Your task to perform on an android device: Is it going to rain this weekend? Image 0: 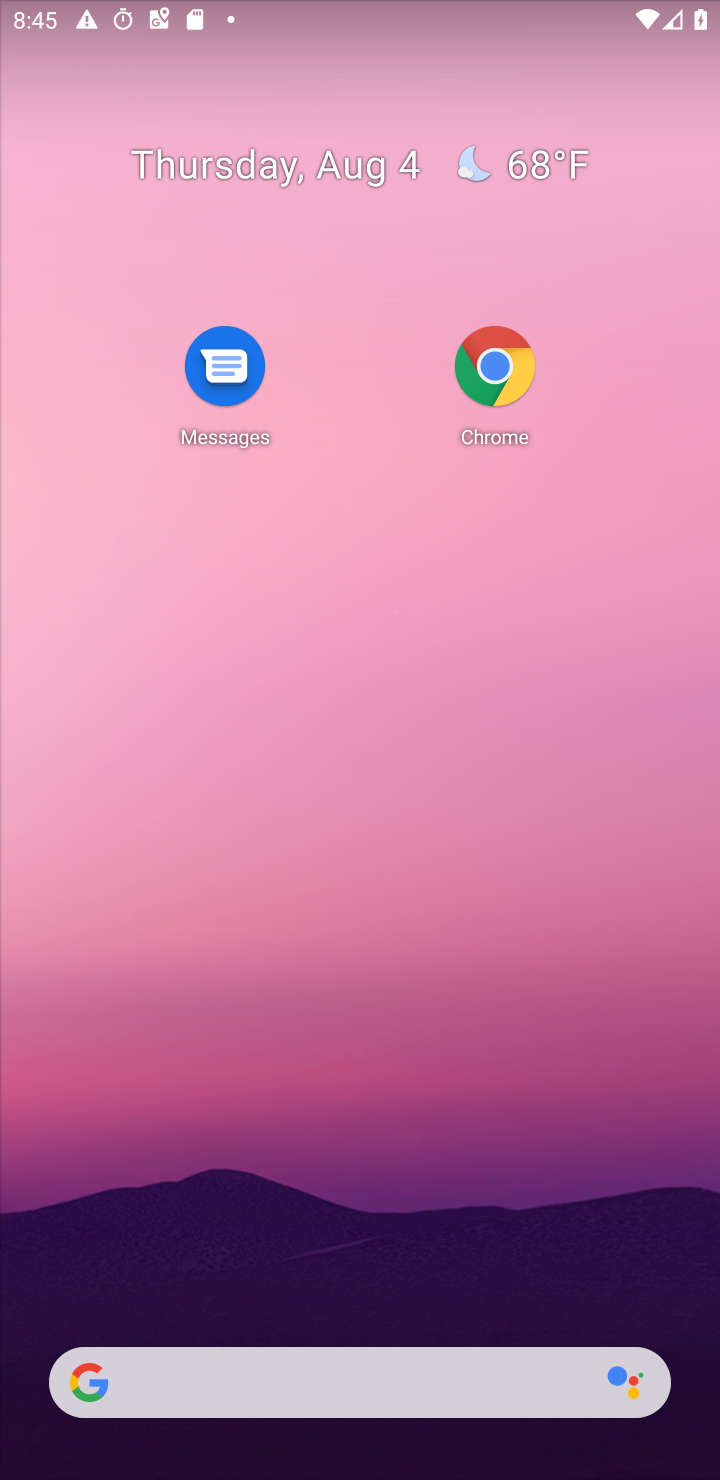
Step 0: press home button
Your task to perform on an android device: Is it going to rain this weekend? Image 1: 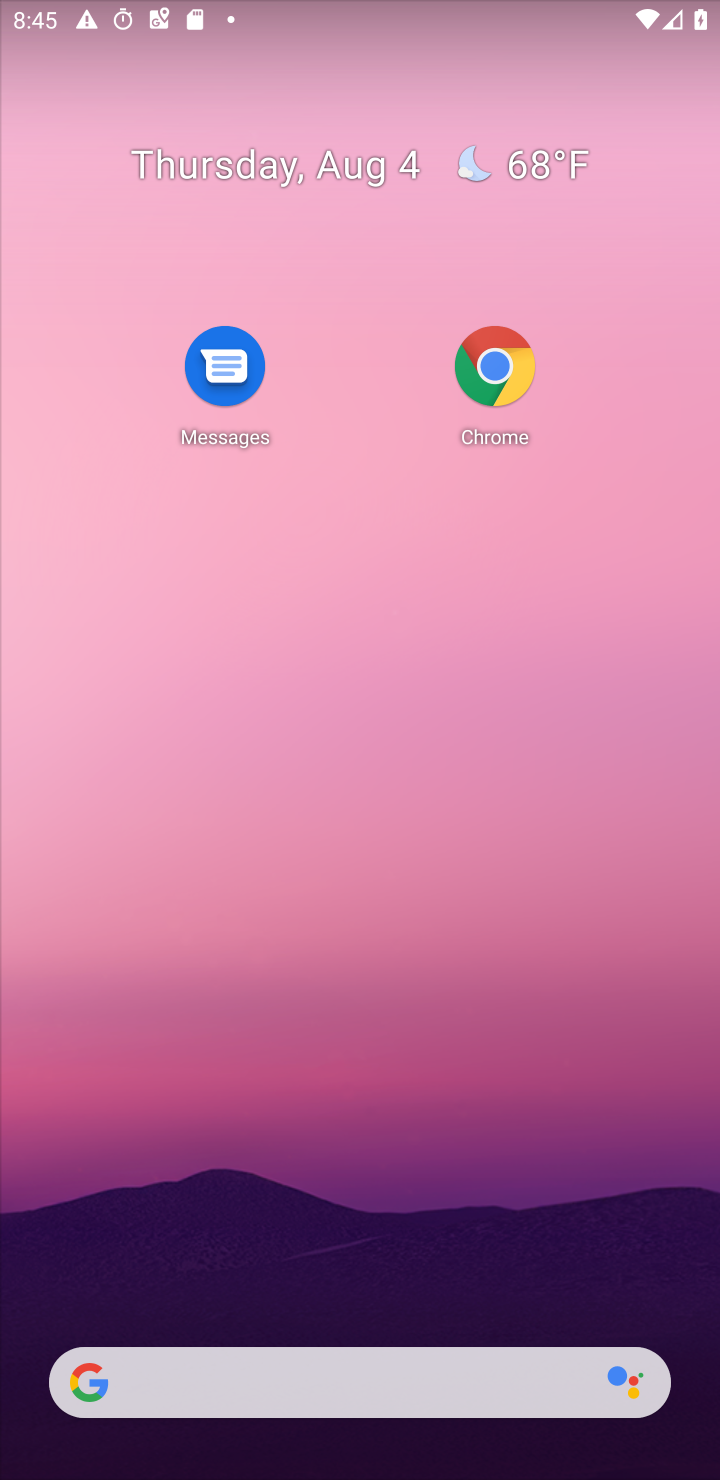
Step 1: click (370, 1392)
Your task to perform on an android device: Is it going to rain this weekend? Image 2: 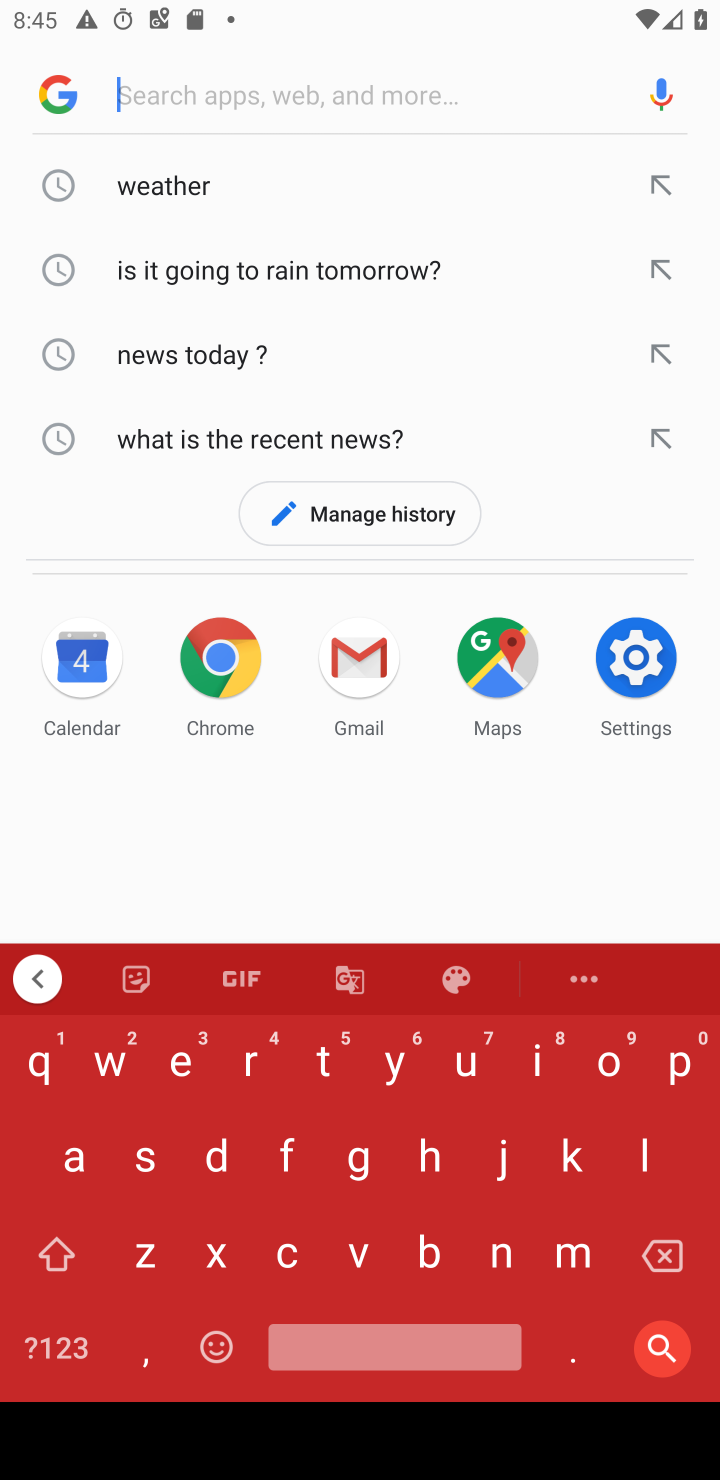
Step 2: click (543, 1045)
Your task to perform on an android device: Is it going to rain this weekend? Image 3: 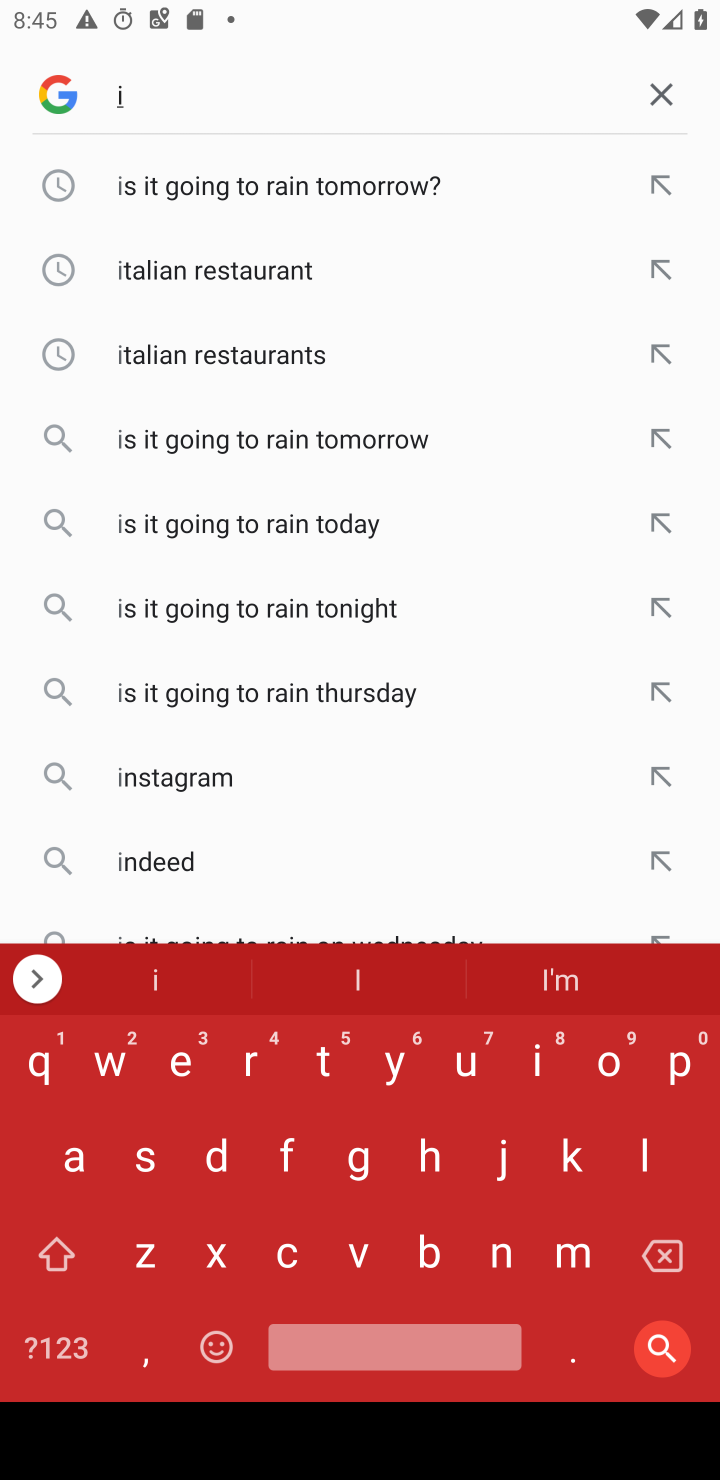
Step 3: click (138, 1153)
Your task to perform on an android device: Is it going to rain this weekend? Image 4: 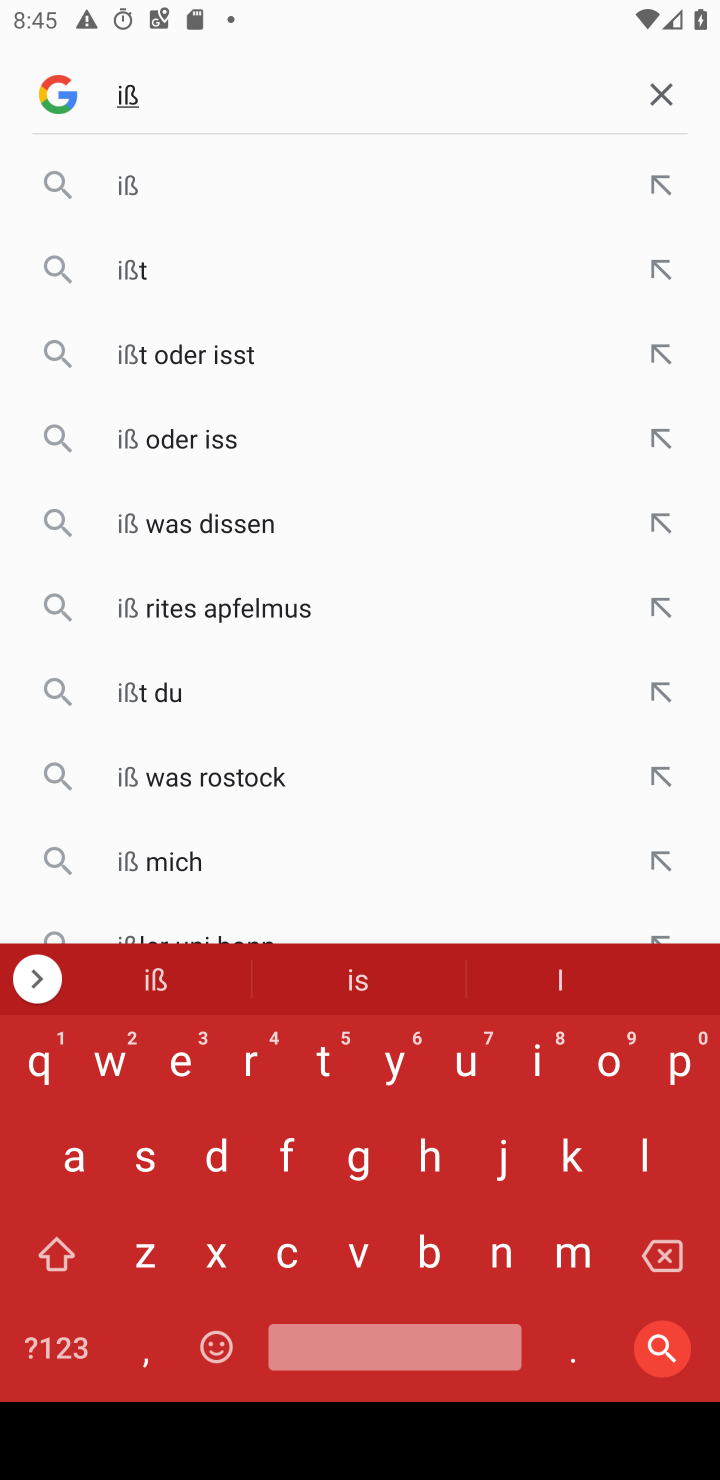
Step 4: click (662, 1263)
Your task to perform on an android device: Is it going to rain this weekend? Image 5: 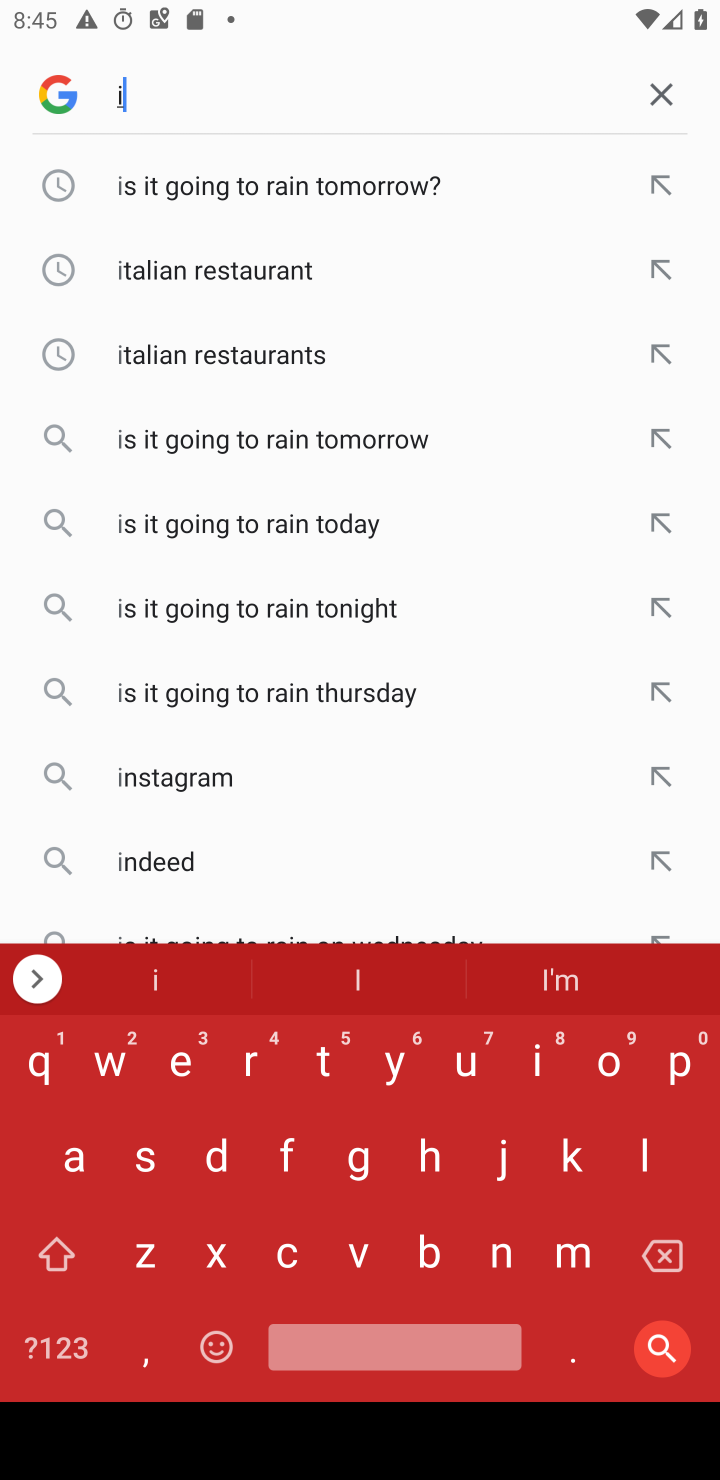
Step 5: click (135, 1154)
Your task to perform on an android device: Is it going to rain this weekend? Image 6: 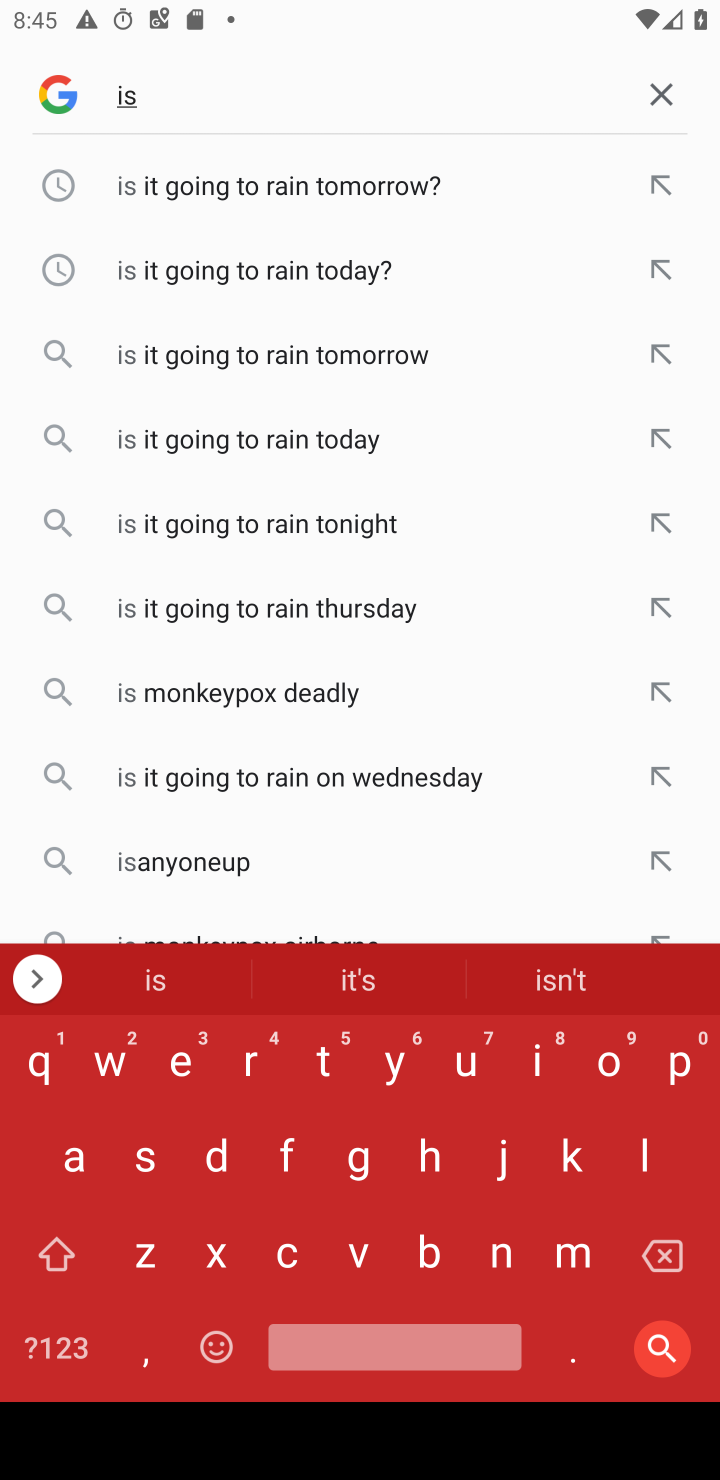
Step 6: click (361, 790)
Your task to perform on an android device: Is it going to rain this weekend? Image 7: 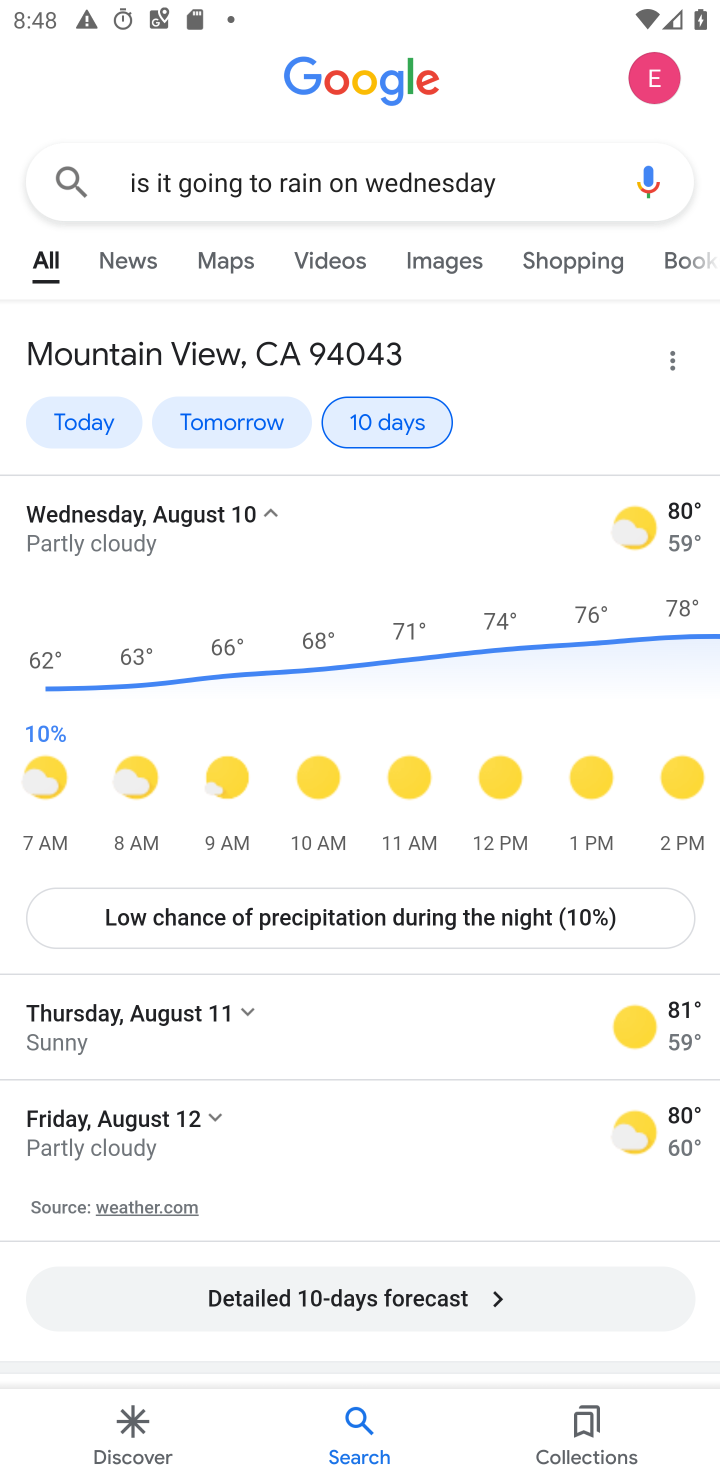
Step 7: task complete